Your task to perform on an android device: Open calendar and show me the second week of next month Image 0: 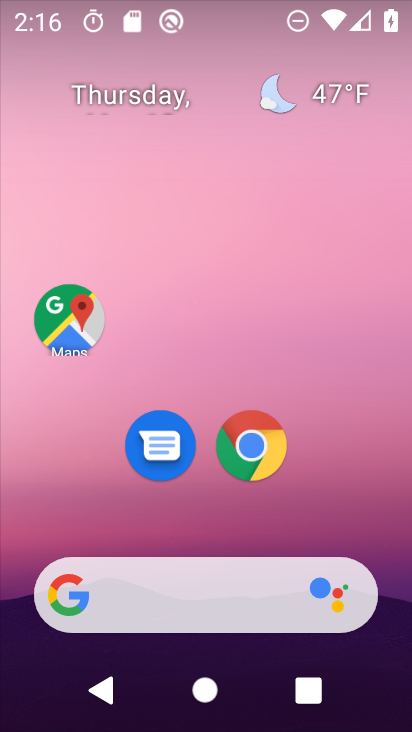
Step 0: drag from (194, 533) to (188, 225)
Your task to perform on an android device: Open calendar and show me the second week of next month Image 1: 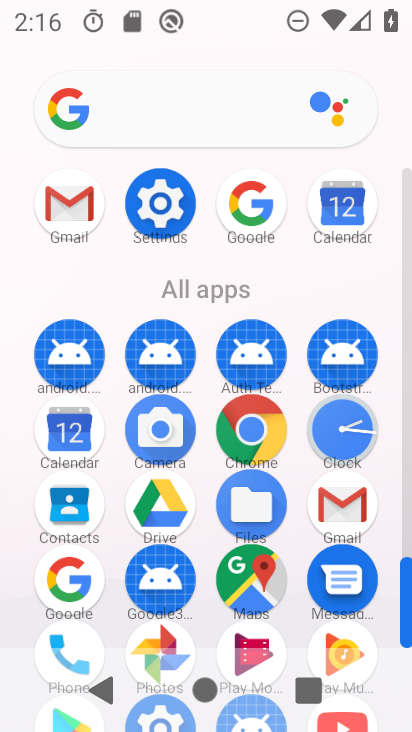
Step 1: click (76, 425)
Your task to perform on an android device: Open calendar and show me the second week of next month Image 2: 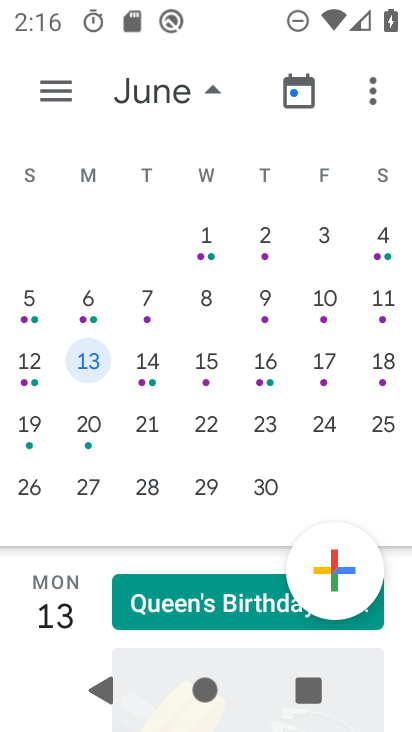
Step 2: click (77, 301)
Your task to perform on an android device: Open calendar and show me the second week of next month Image 3: 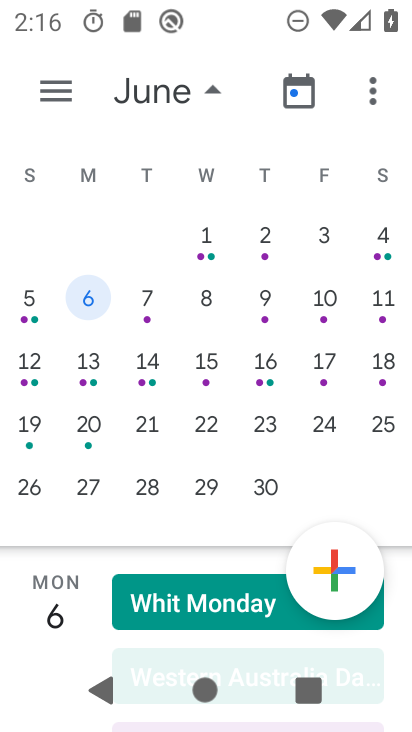
Step 3: task complete